Your task to perform on an android device: Open Yahoo.com Image 0: 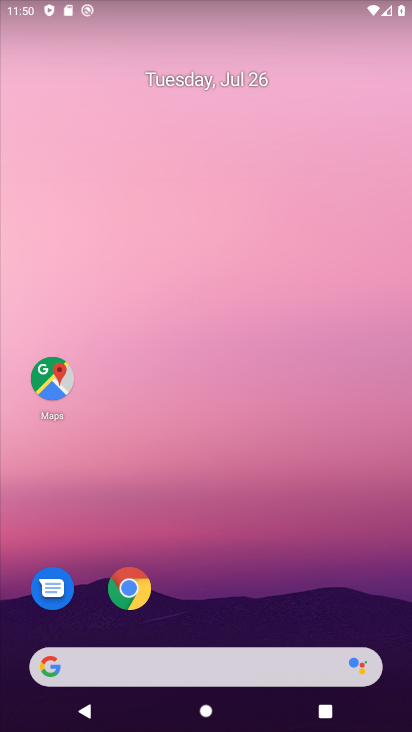
Step 0: click (89, 665)
Your task to perform on an android device: Open Yahoo.com Image 1: 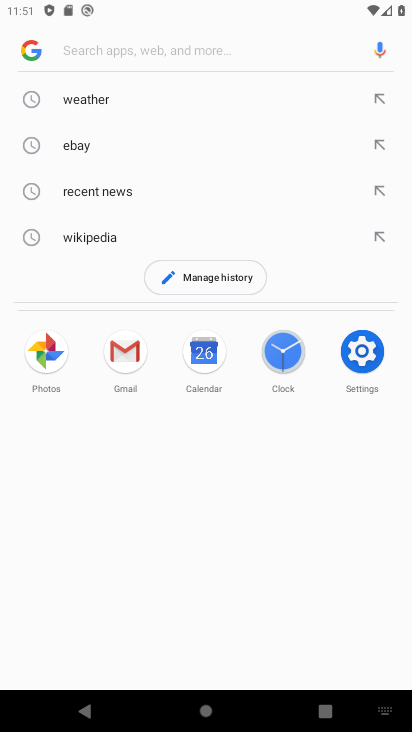
Step 1: type "Yahoo.com"
Your task to perform on an android device: Open Yahoo.com Image 2: 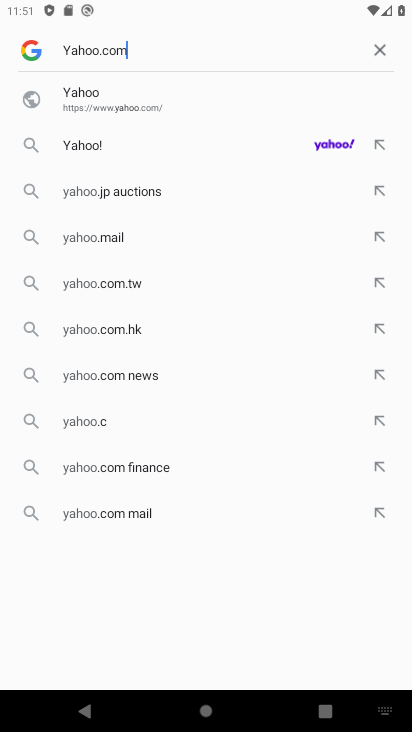
Step 2: type ""
Your task to perform on an android device: Open Yahoo.com Image 3: 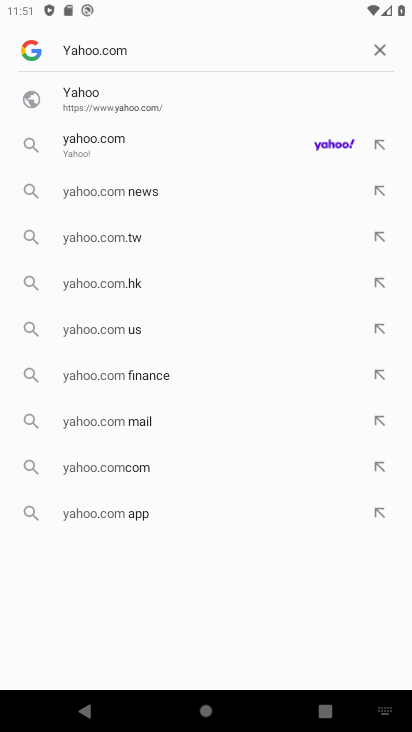
Step 3: click (136, 144)
Your task to perform on an android device: Open Yahoo.com Image 4: 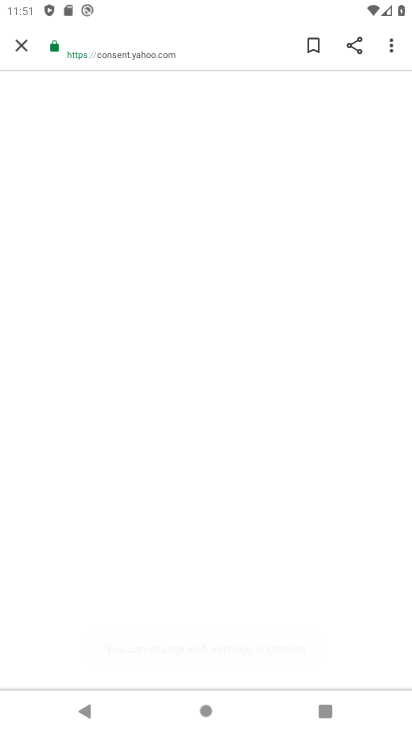
Step 4: task complete